Your task to perform on an android device: Show me recent news Image 0: 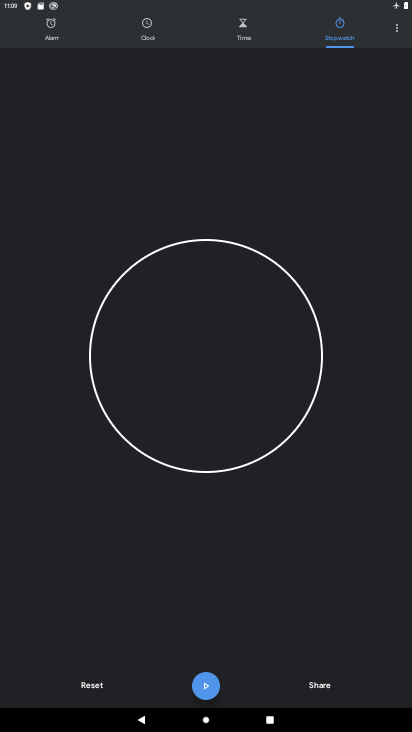
Step 0: press home button
Your task to perform on an android device: Show me recent news Image 1: 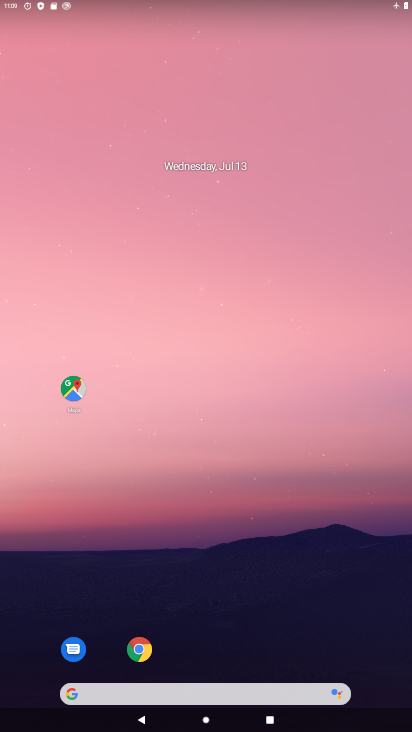
Step 1: drag from (232, 693) to (321, 81)
Your task to perform on an android device: Show me recent news Image 2: 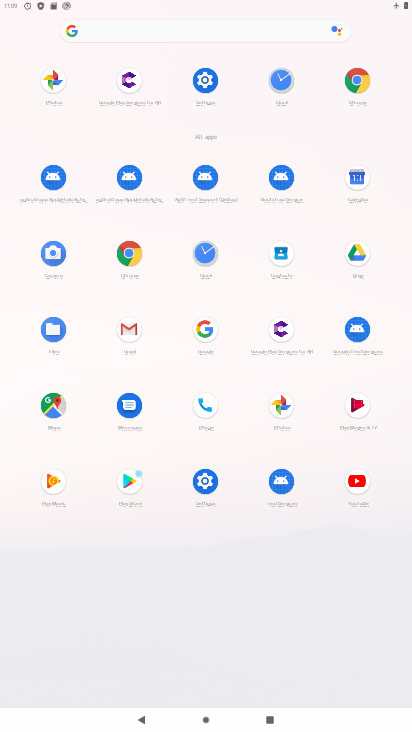
Step 2: click (202, 328)
Your task to perform on an android device: Show me recent news Image 3: 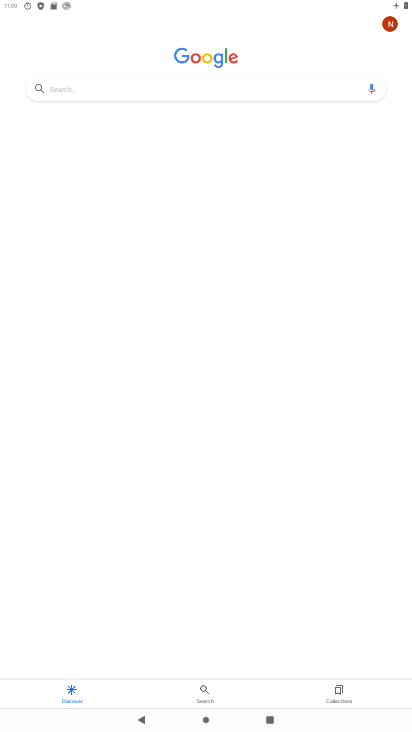
Step 3: click (147, 83)
Your task to perform on an android device: Show me recent news Image 4: 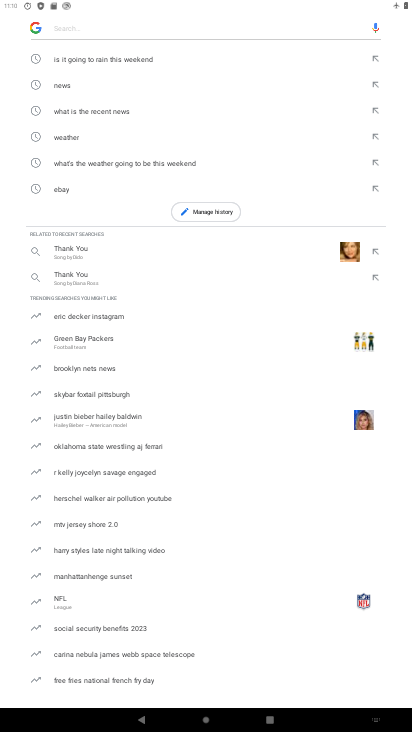
Step 4: type "recent news"
Your task to perform on an android device: Show me recent news Image 5: 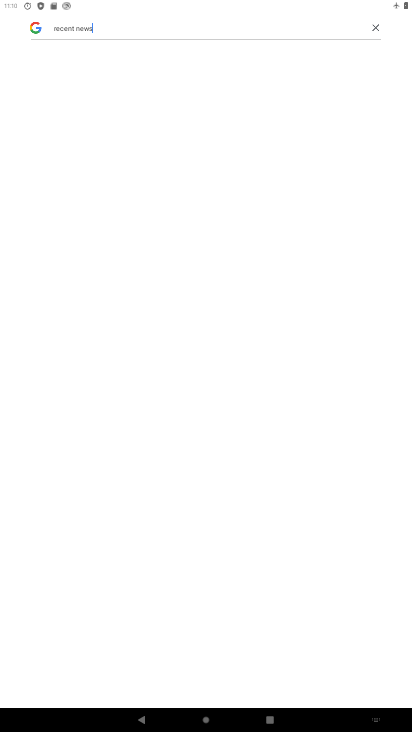
Step 5: task complete